Your task to perform on an android device: allow cookies in the chrome app Image 0: 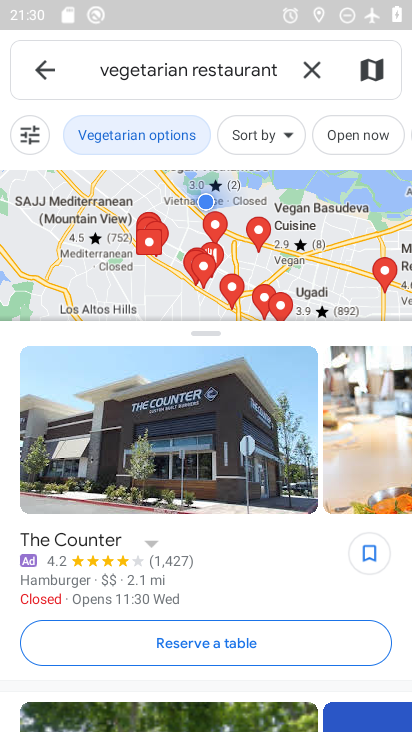
Step 0: press home button
Your task to perform on an android device: allow cookies in the chrome app Image 1: 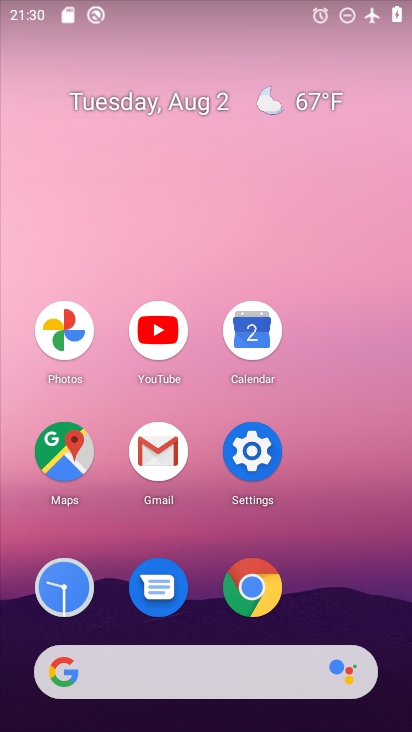
Step 1: click (252, 585)
Your task to perform on an android device: allow cookies in the chrome app Image 2: 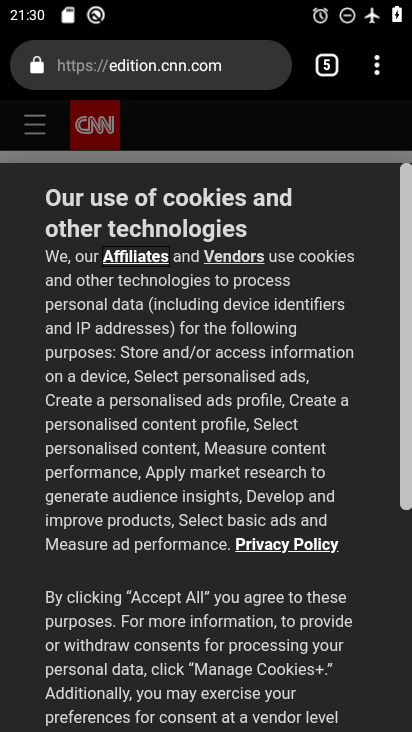
Step 2: click (372, 67)
Your task to perform on an android device: allow cookies in the chrome app Image 3: 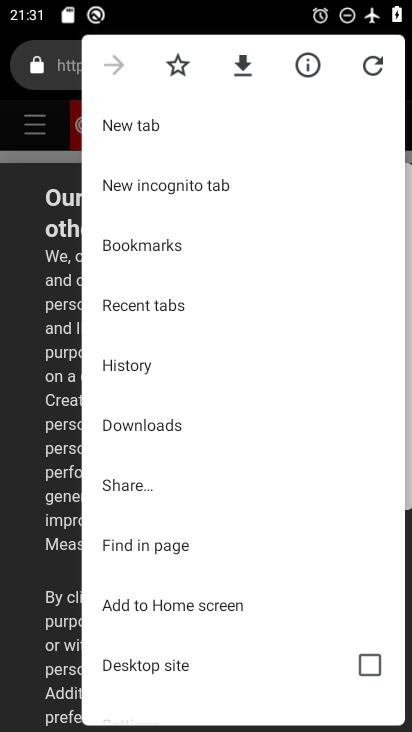
Step 3: drag from (232, 634) to (247, 269)
Your task to perform on an android device: allow cookies in the chrome app Image 4: 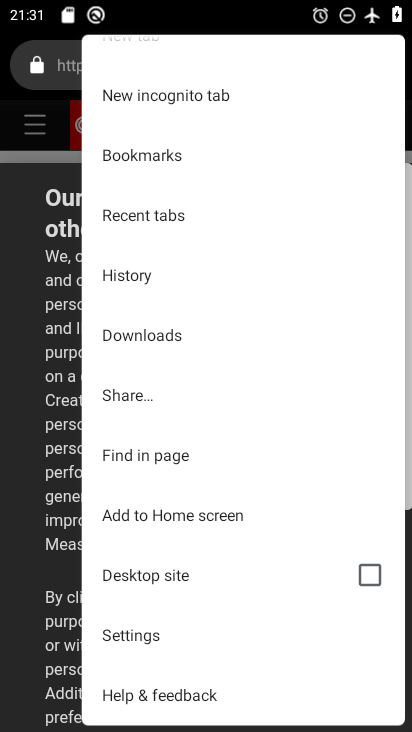
Step 4: click (130, 637)
Your task to perform on an android device: allow cookies in the chrome app Image 5: 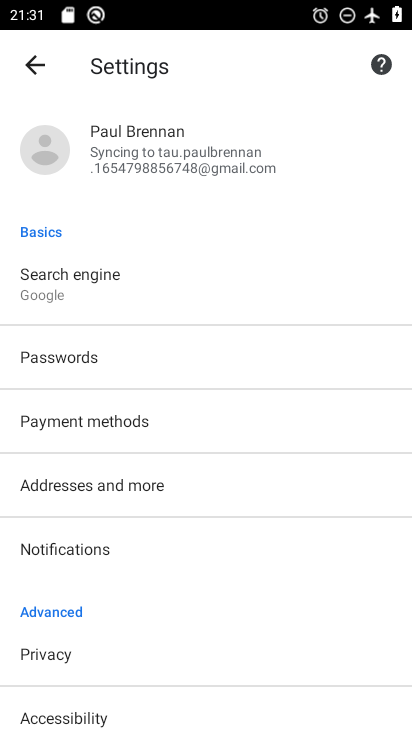
Step 5: drag from (198, 538) to (194, 202)
Your task to perform on an android device: allow cookies in the chrome app Image 6: 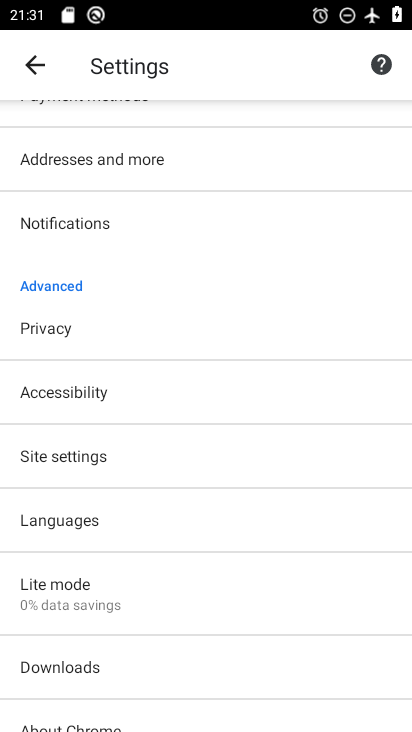
Step 6: click (194, 480)
Your task to perform on an android device: allow cookies in the chrome app Image 7: 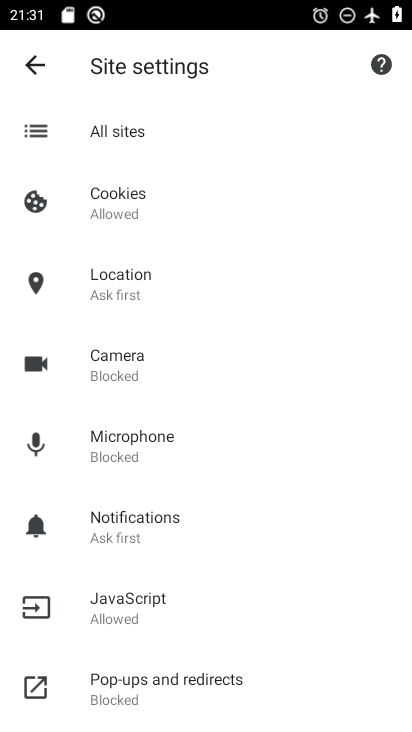
Step 7: task complete